Your task to perform on an android device: Open sound settings Image 0: 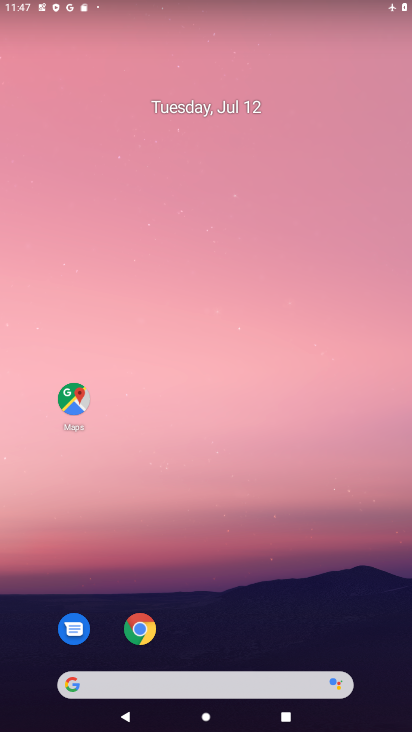
Step 0: drag from (243, 630) to (243, 227)
Your task to perform on an android device: Open sound settings Image 1: 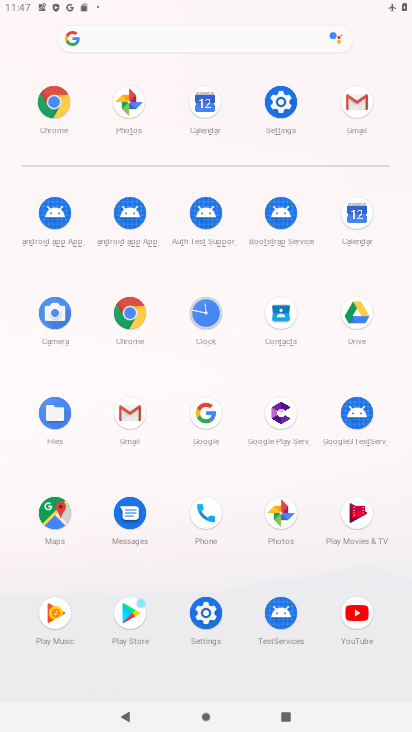
Step 1: click (279, 88)
Your task to perform on an android device: Open sound settings Image 2: 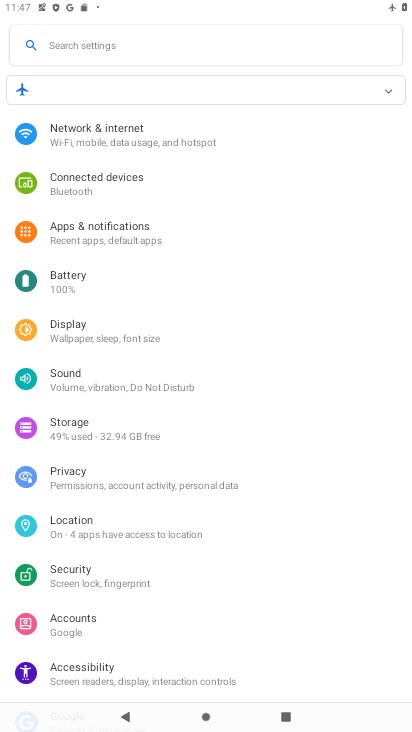
Step 2: click (90, 380)
Your task to perform on an android device: Open sound settings Image 3: 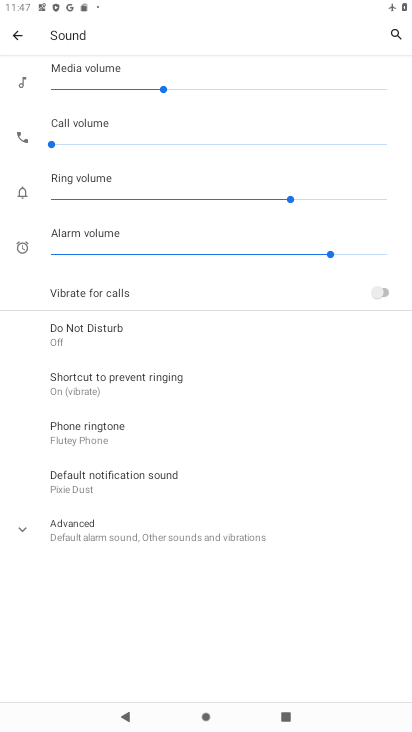
Step 3: task complete